Your task to perform on an android device: turn off location history Image 0: 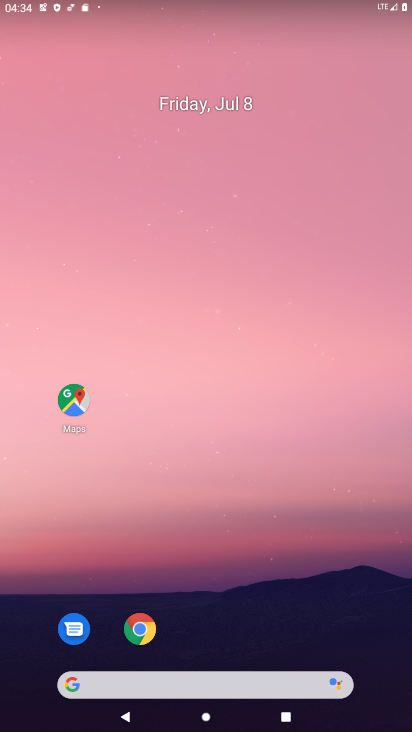
Step 0: drag from (222, 716) to (216, 157)
Your task to perform on an android device: turn off location history Image 1: 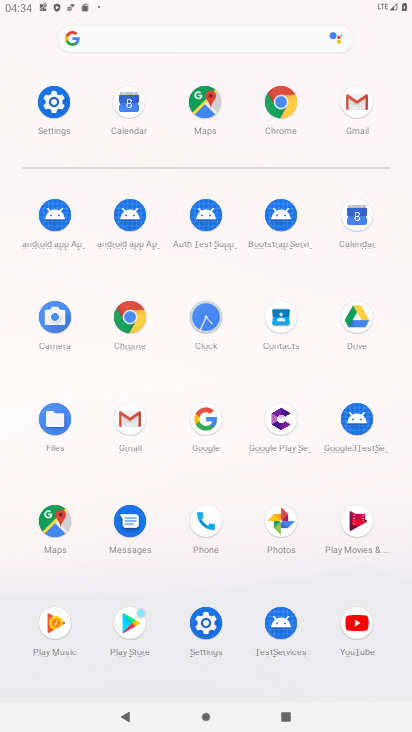
Step 1: click (49, 98)
Your task to perform on an android device: turn off location history Image 2: 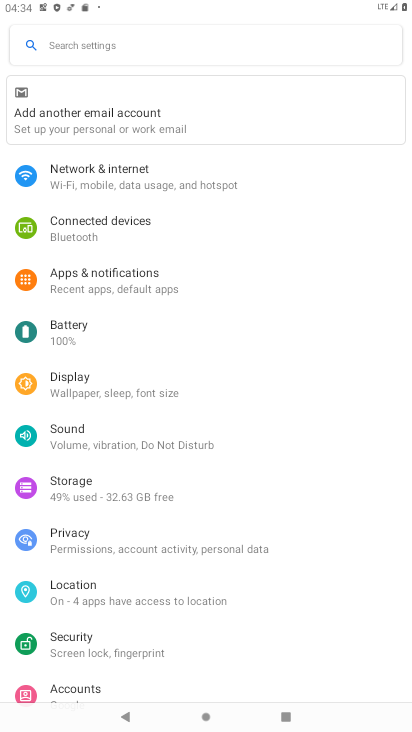
Step 2: click (70, 592)
Your task to perform on an android device: turn off location history Image 3: 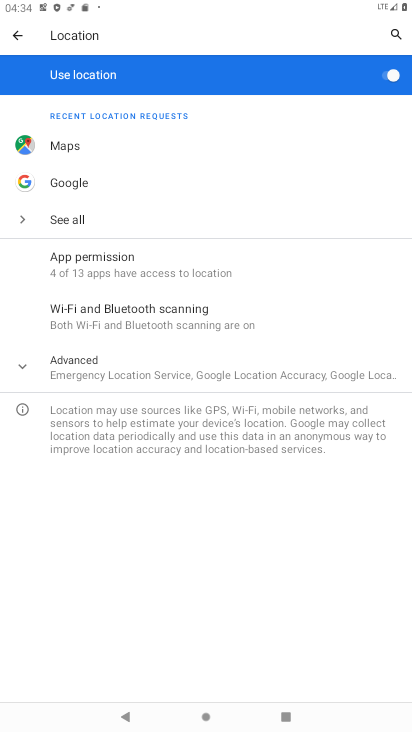
Step 3: click (119, 371)
Your task to perform on an android device: turn off location history Image 4: 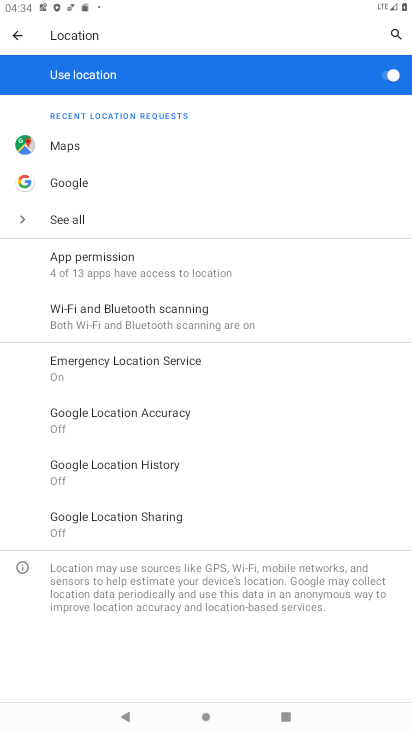
Step 4: click (145, 463)
Your task to perform on an android device: turn off location history Image 5: 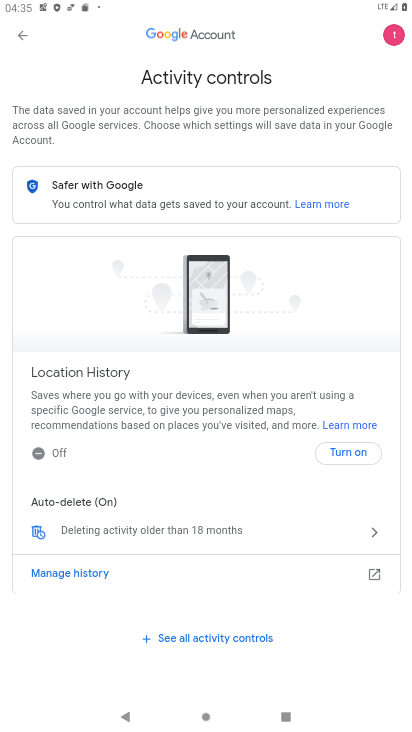
Step 5: task complete